Your task to perform on an android device: turn off wifi Image 0: 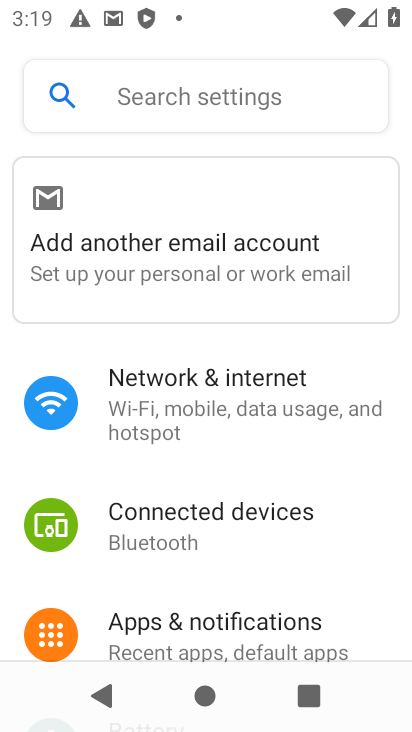
Step 0: click (267, 405)
Your task to perform on an android device: turn off wifi Image 1: 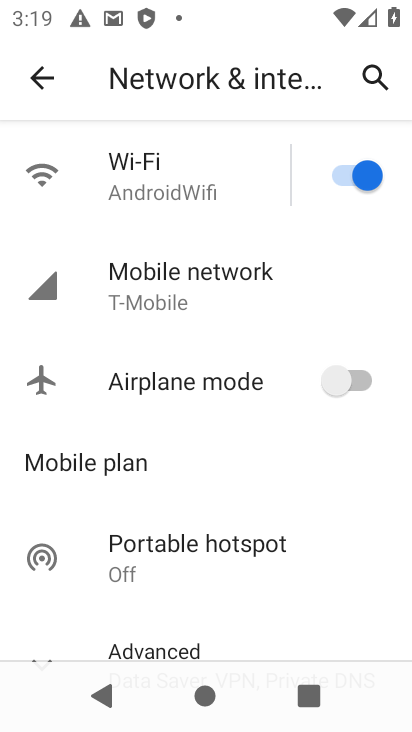
Step 1: click (211, 183)
Your task to perform on an android device: turn off wifi Image 2: 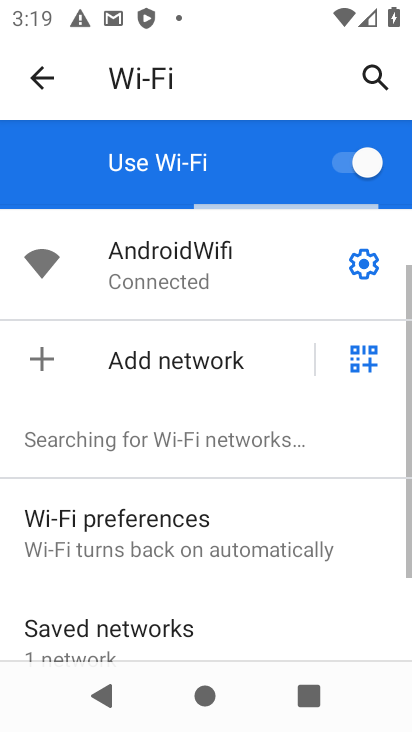
Step 2: click (349, 169)
Your task to perform on an android device: turn off wifi Image 3: 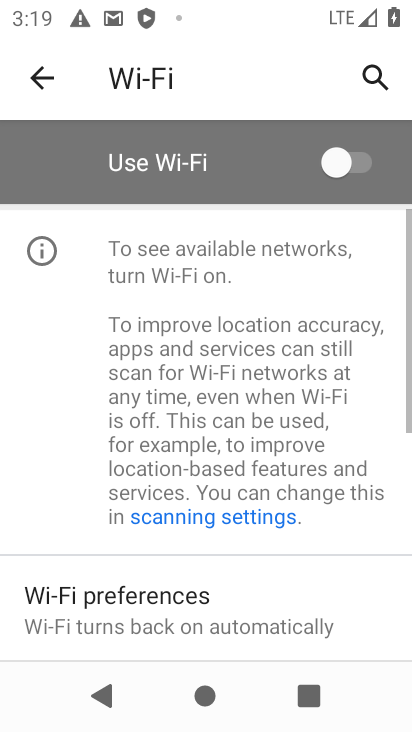
Step 3: task complete